Your task to perform on an android device: turn off notifications in google photos Image 0: 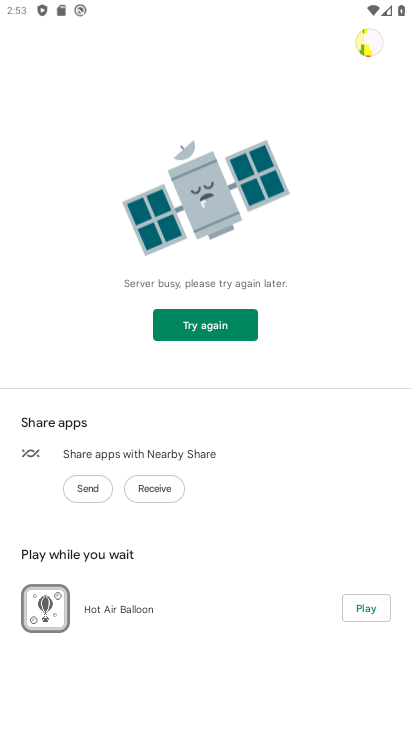
Step 0: press home button
Your task to perform on an android device: turn off notifications in google photos Image 1: 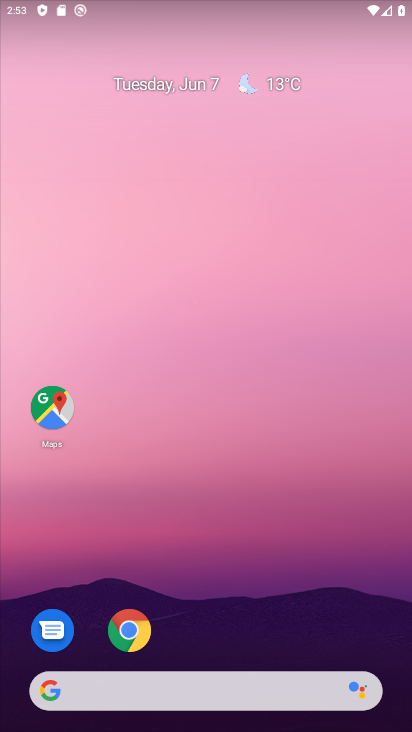
Step 1: drag from (245, 640) to (286, 181)
Your task to perform on an android device: turn off notifications in google photos Image 2: 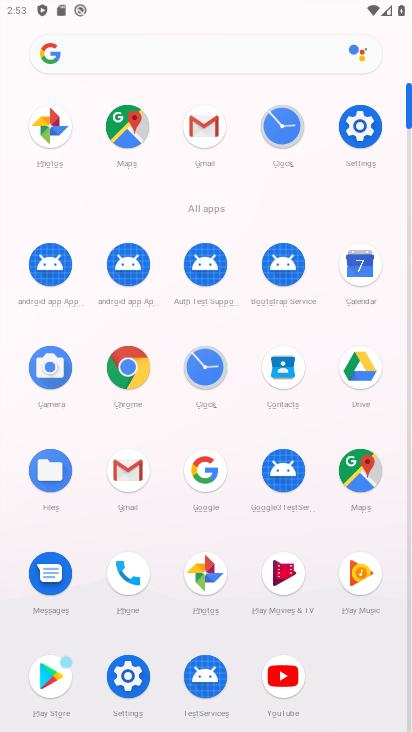
Step 2: click (210, 584)
Your task to perform on an android device: turn off notifications in google photos Image 3: 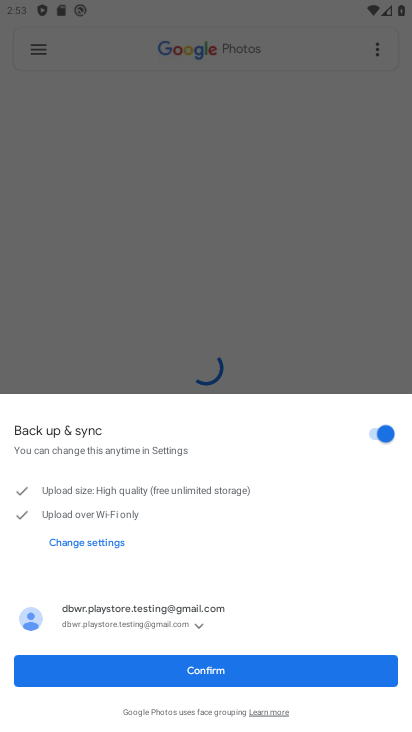
Step 3: click (234, 677)
Your task to perform on an android device: turn off notifications in google photos Image 4: 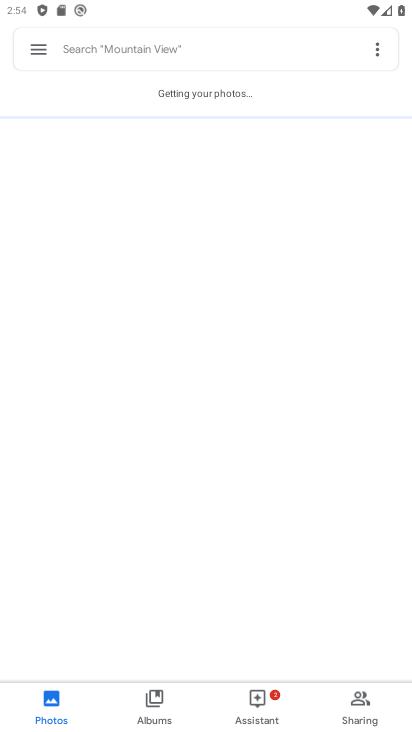
Step 4: click (32, 55)
Your task to perform on an android device: turn off notifications in google photos Image 5: 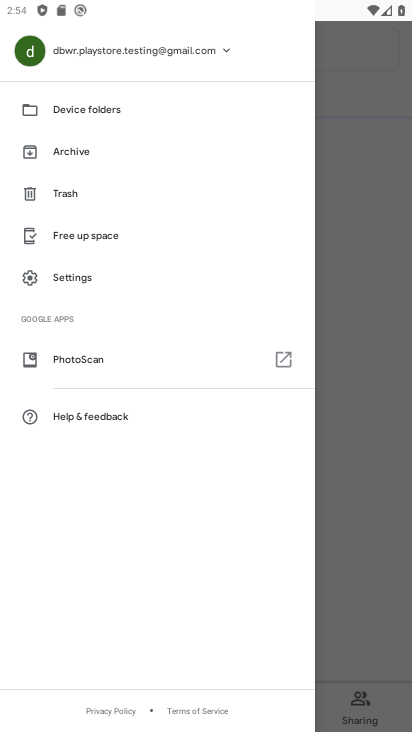
Step 5: click (110, 286)
Your task to perform on an android device: turn off notifications in google photos Image 6: 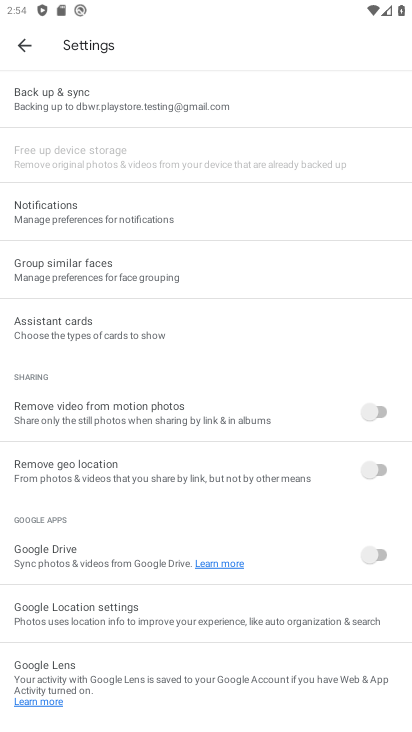
Step 6: click (195, 218)
Your task to perform on an android device: turn off notifications in google photos Image 7: 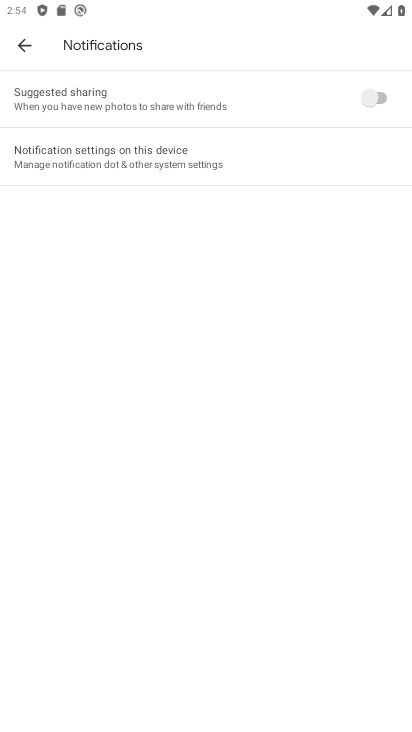
Step 7: click (341, 150)
Your task to perform on an android device: turn off notifications in google photos Image 8: 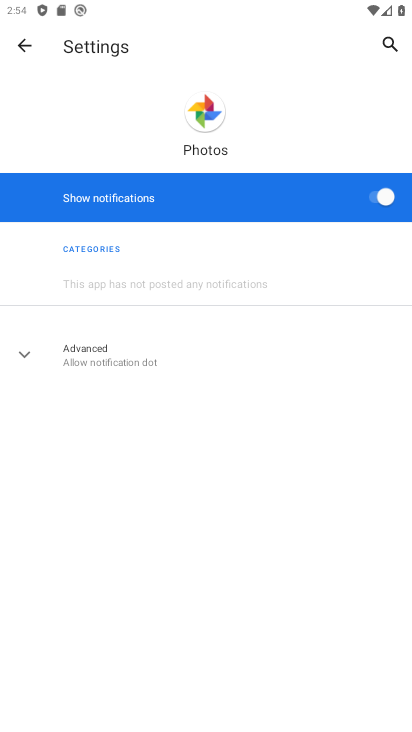
Step 8: click (390, 194)
Your task to perform on an android device: turn off notifications in google photos Image 9: 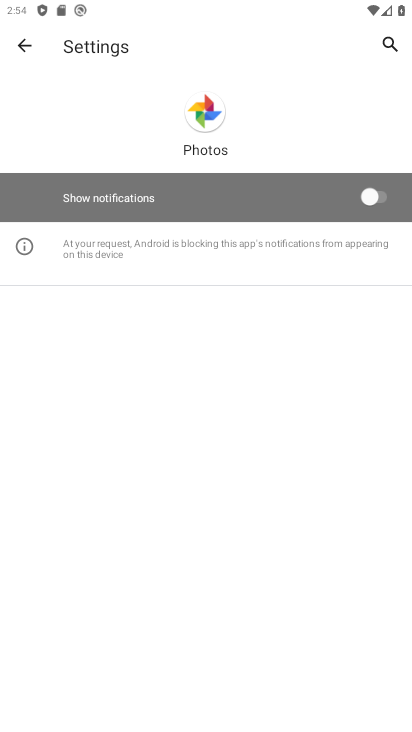
Step 9: task complete